Your task to perform on an android device: Go to Reddit.com Image 0: 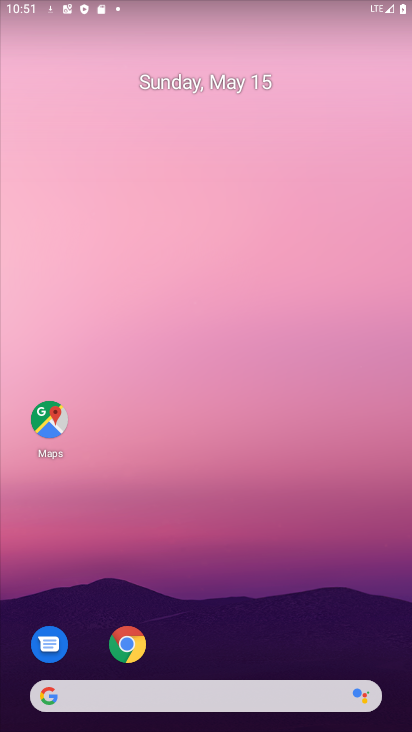
Step 0: drag from (245, 676) to (293, 246)
Your task to perform on an android device: Go to Reddit.com Image 1: 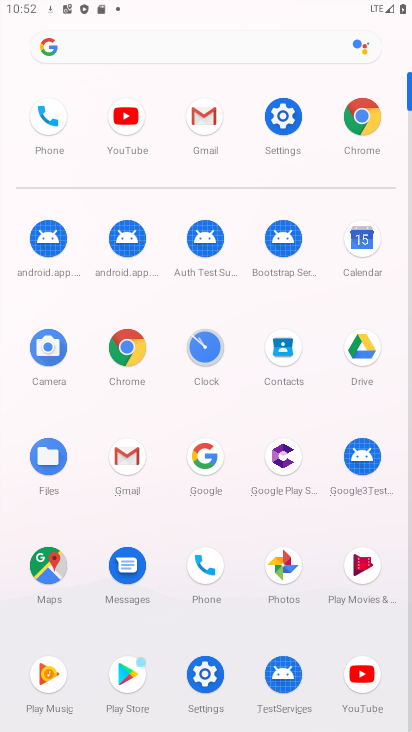
Step 1: click (356, 135)
Your task to perform on an android device: Go to Reddit.com Image 2: 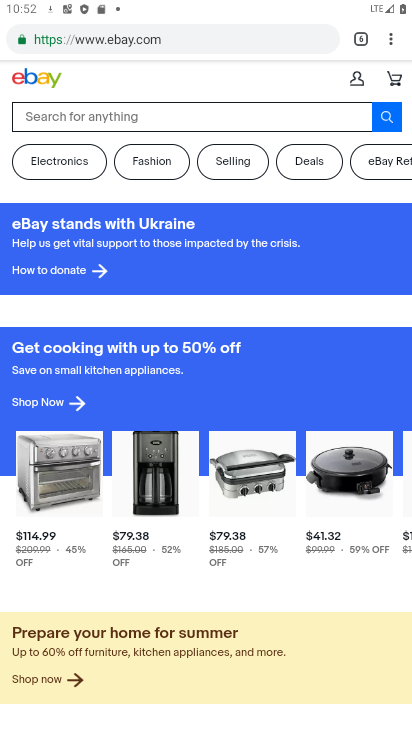
Step 2: click (136, 39)
Your task to perform on an android device: Go to Reddit.com Image 3: 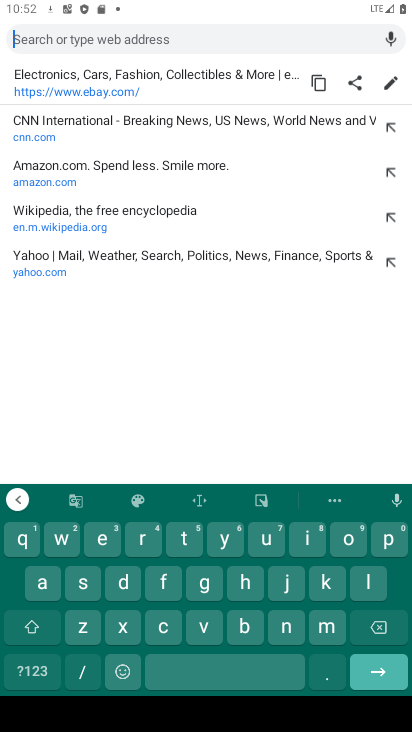
Step 3: click (146, 537)
Your task to perform on an android device: Go to Reddit.com Image 4: 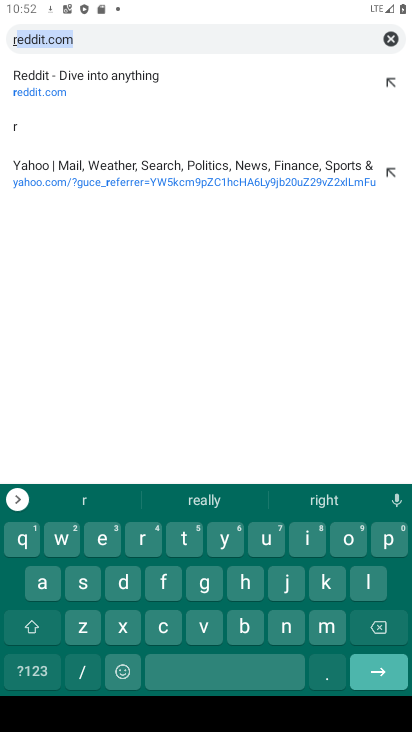
Step 4: click (100, 538)
Your task to perform on an android device: Go to Reddit.com Image 5: 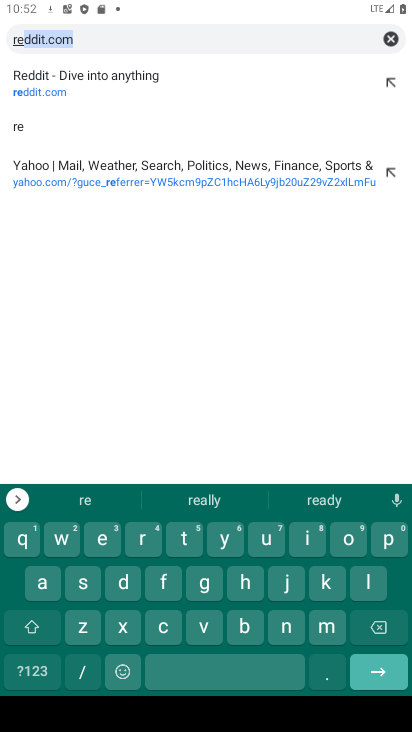
Step 5: click (103, 39)
Your task to perform on an android device: Go to Reddit.com Image 6: 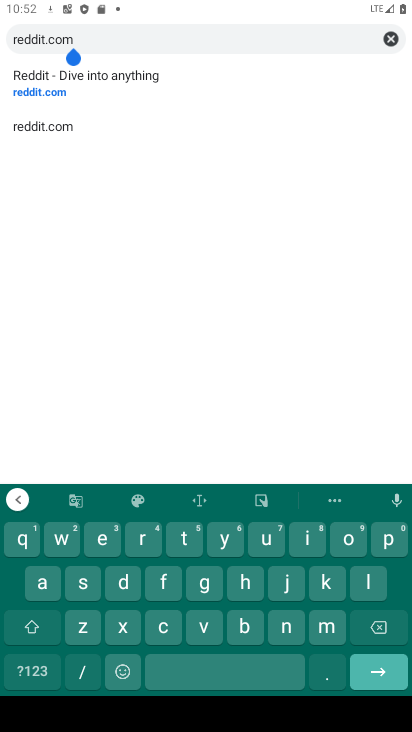
Step 6: click (375, 684)
Your task to perform on an android device: Go to Reddit.com Image 7: 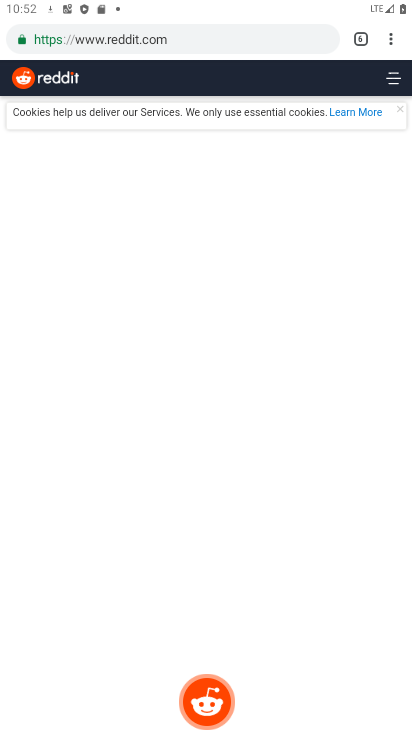
Step 7: task complete